Your task to perform on an android device: Go to Yahoo.com Image 0: 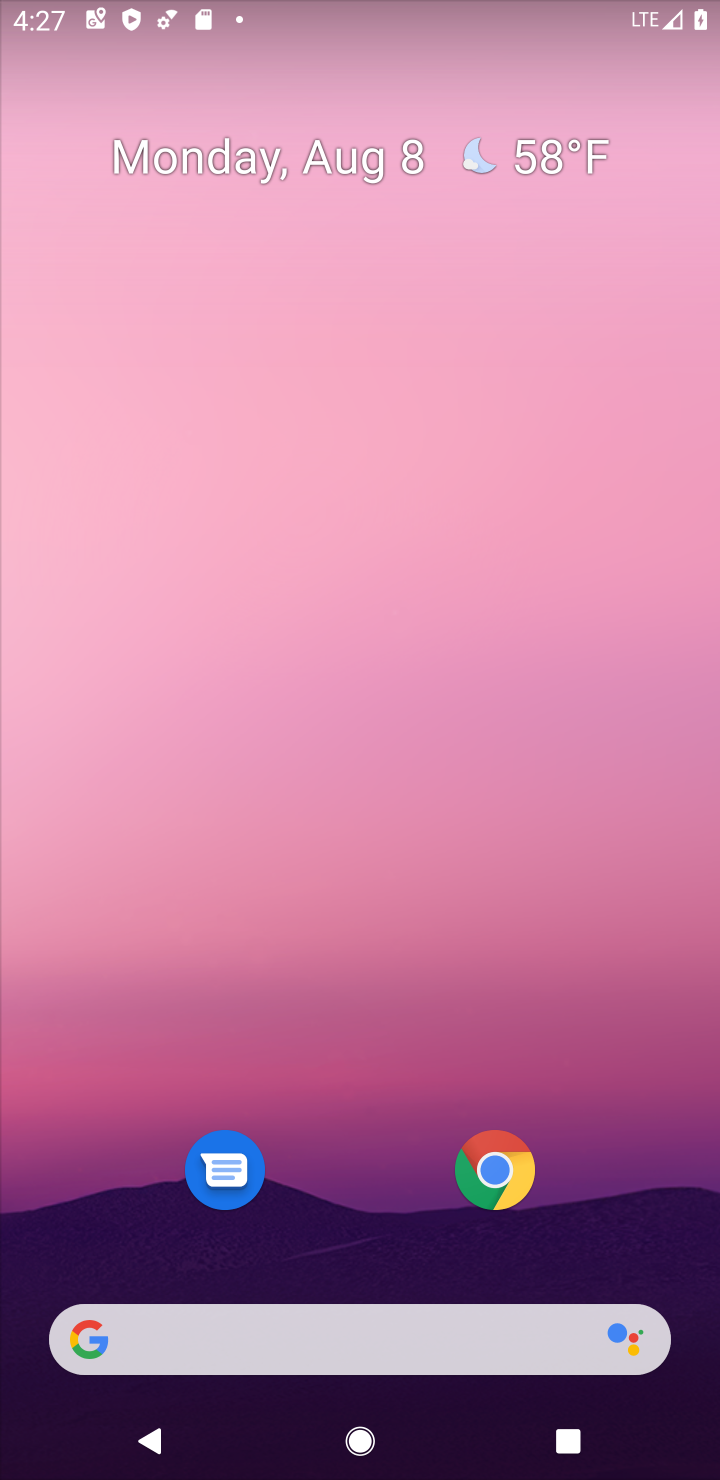
Step 0: click (485, 1176)
Your task to perform on an android device: Go to Yahoo.com Image 1: 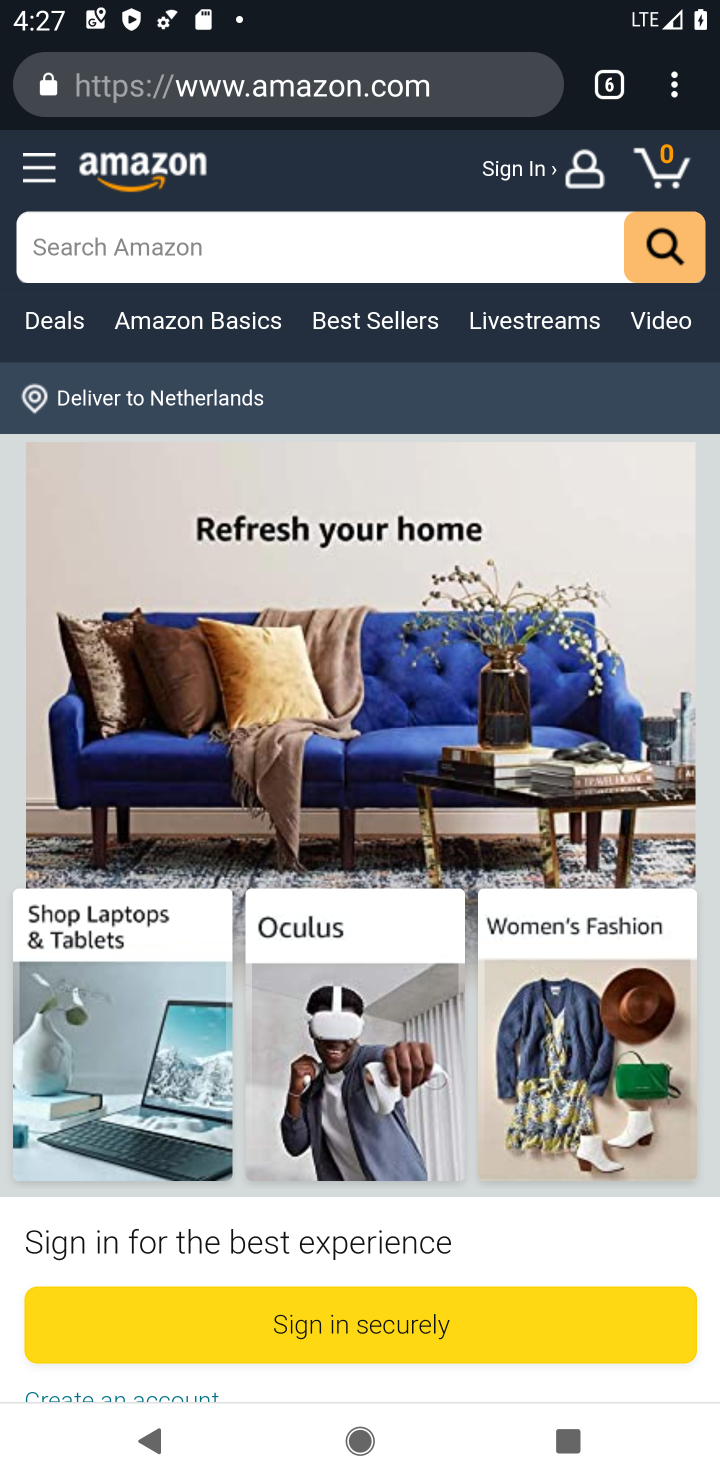
Step 1: click (619, 81)
Your task to perform on an android device: Go to Yahoo.com Image 2: 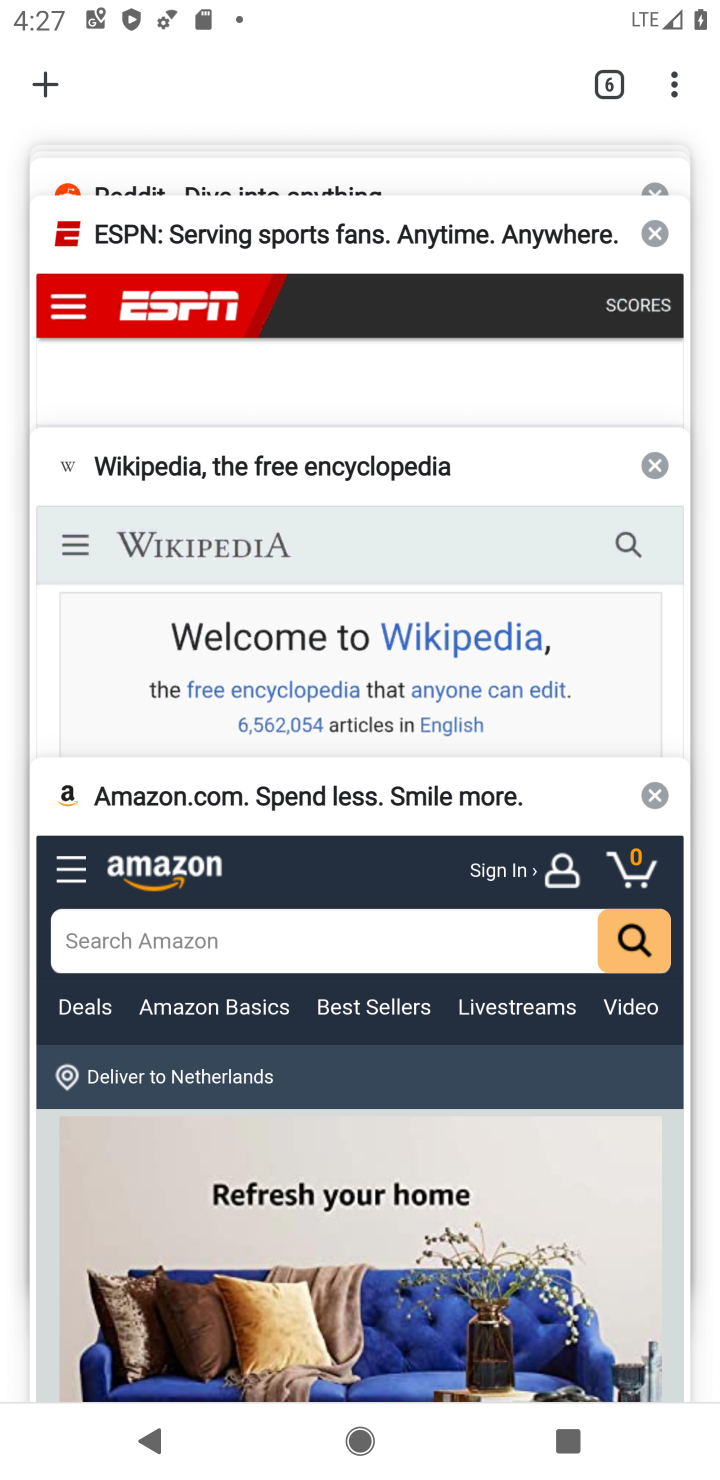
Step 2: click (58, 85)
Your task to perform on an android device: Go to Yahoo.com Image 3: 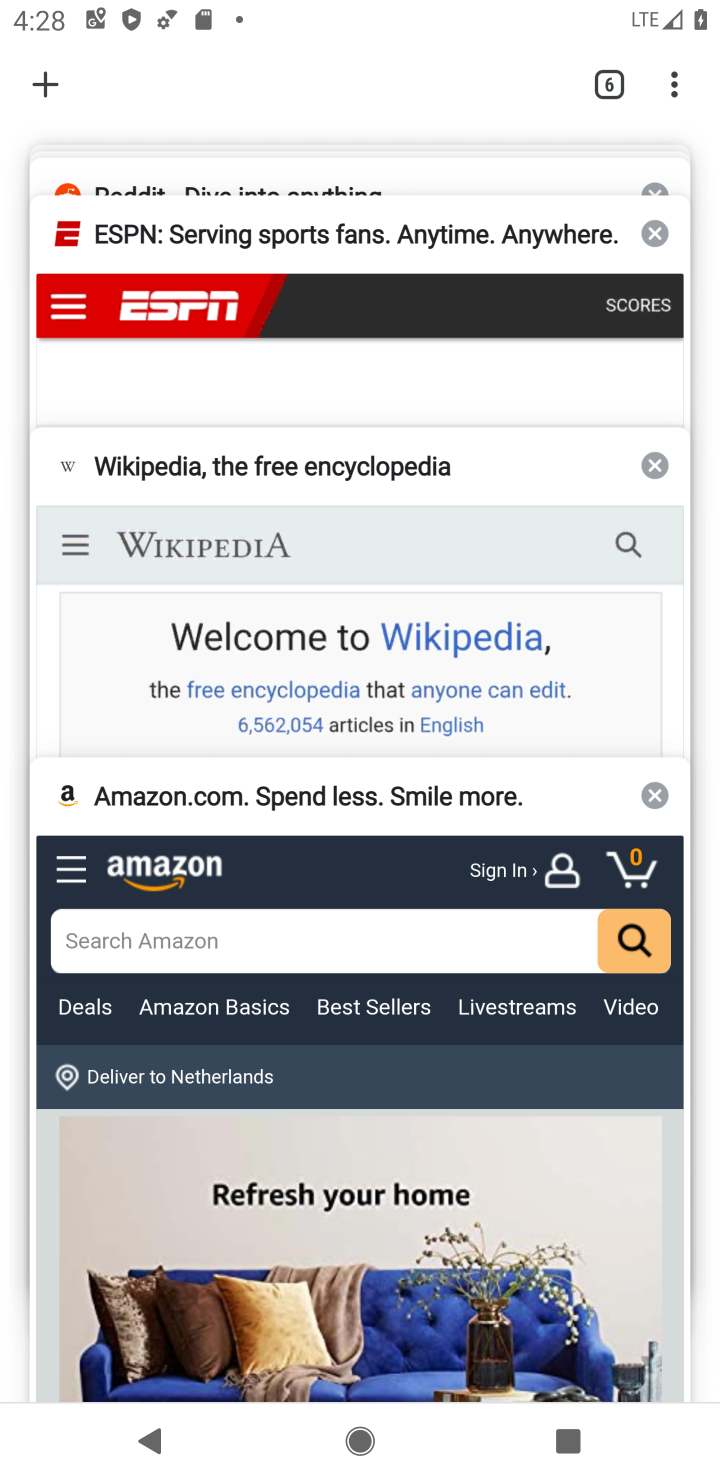
Step 3: click (59, 64)
Your task to perform on an android device: Go to Yahoo.com Image 4: 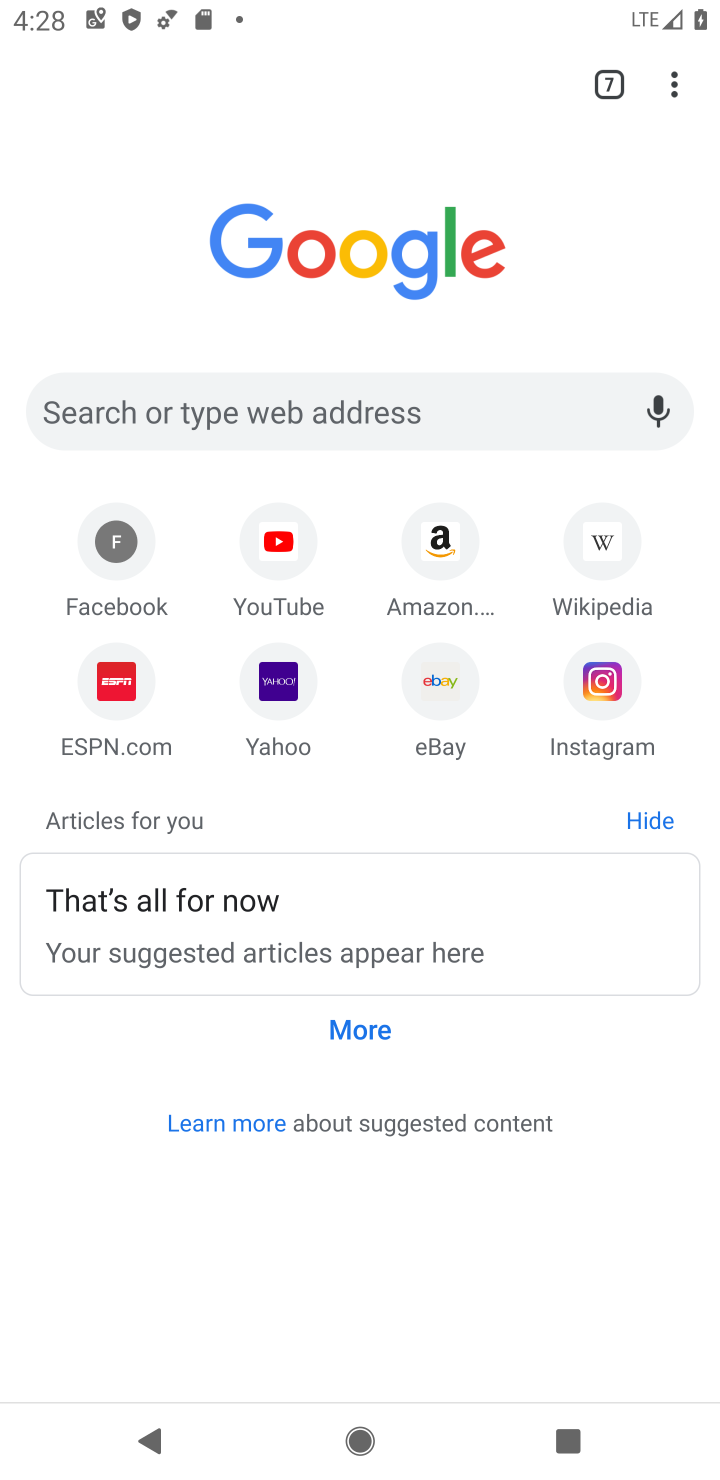
Step 4: click (283, 720)
Your task to perform on an android device: Go to Yahoo.com Image 5: 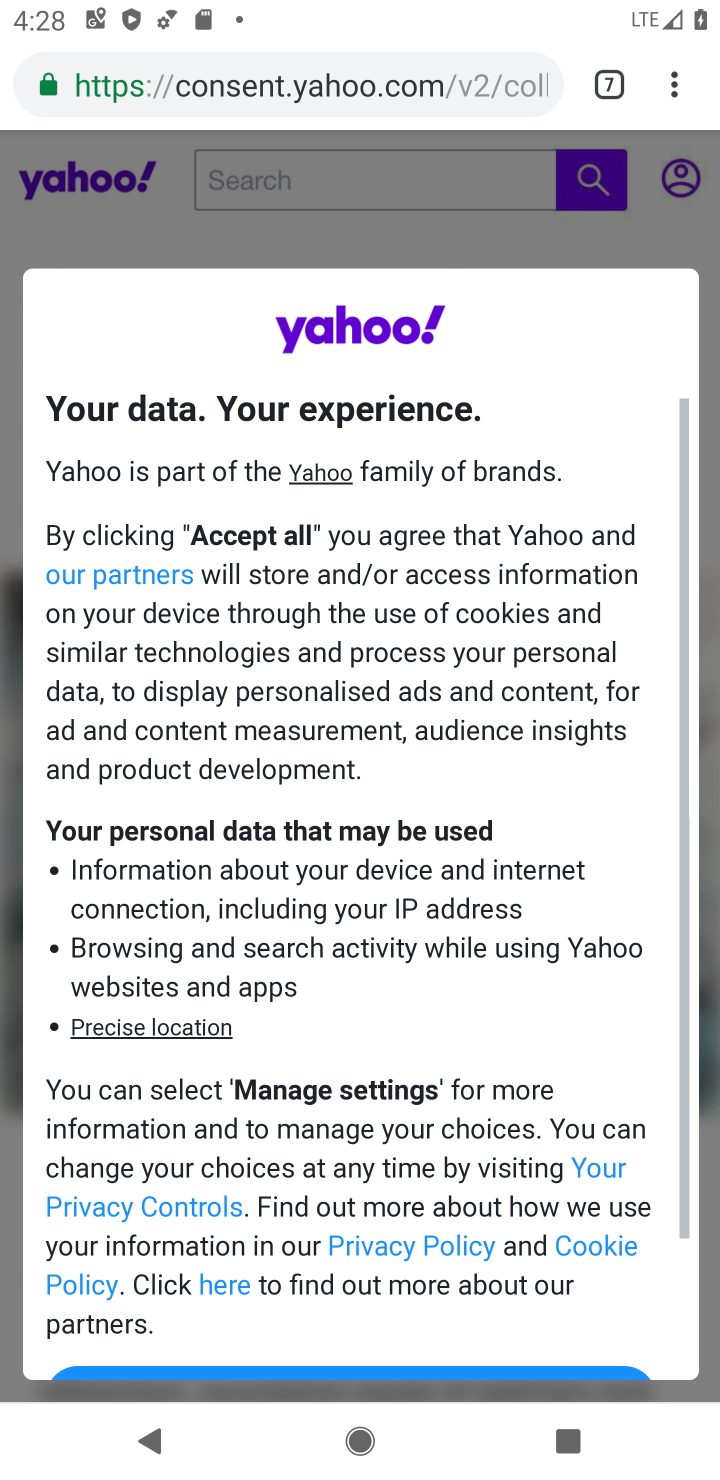
Step 5: task complete